Your task to perform on an android device: Search for sushi restaurants on Maps Image 0: 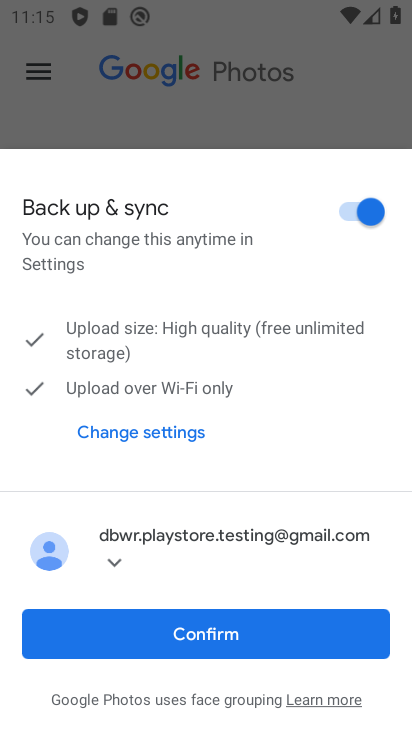
Step 0: press back button
Your task to perform on an android device: Search for sushi restaurants on Maps Image 1: 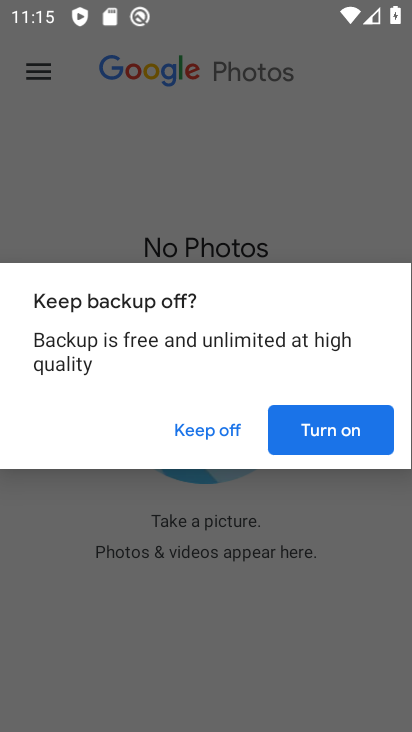
Step 1: press home button
Your task to perform on an android device: Search for sushi restaurants on Maps Image 2: 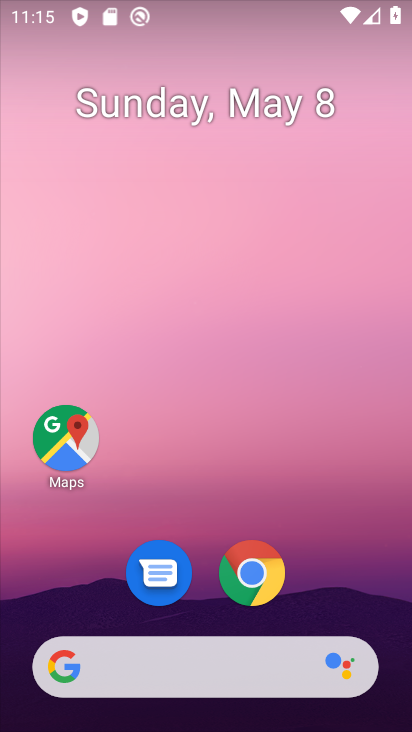
Step 2: drag from (319, 525) to (225, 17)
Your task to perform on an android device: Search for sushi restaurants on Maps Image 3: 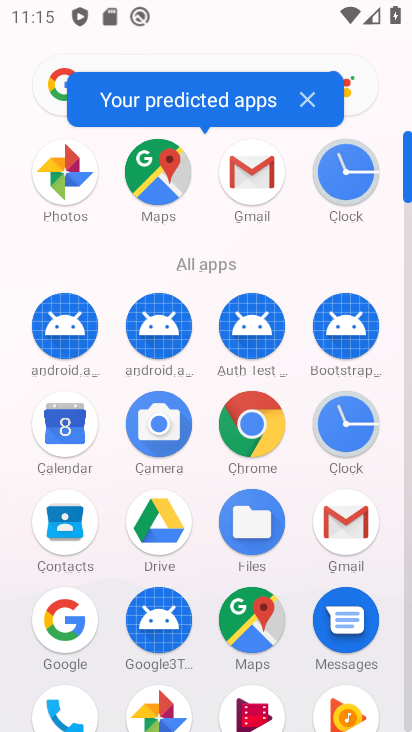
Step 3: click (157, 172)
Your task to perform on an android device: Search for sushi restaurants on Maps Image 4: 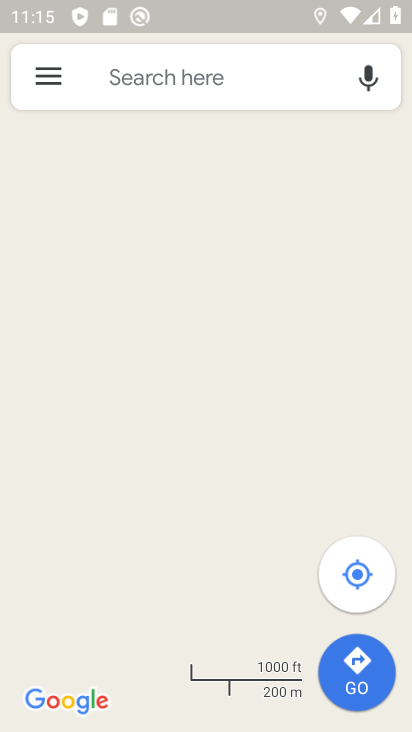
Step 4: click (245, 75)
Your task to perform on an android device: Search for sushi restaurants on Maps Image 5: 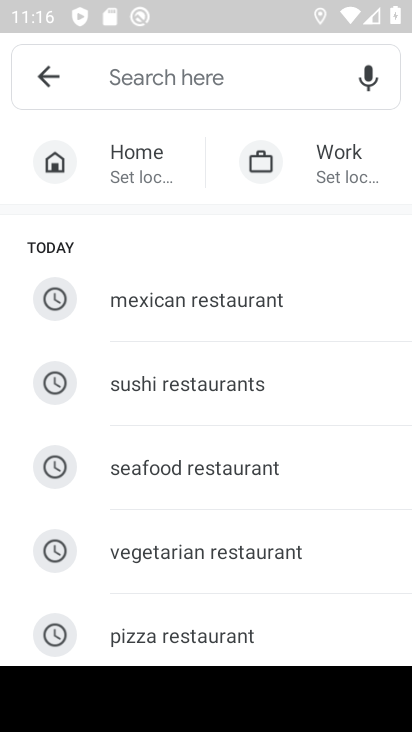
Step 5: click (212, 395)
Your task to perform on an android device: Search for sushi restaurants on Maps Image 6: 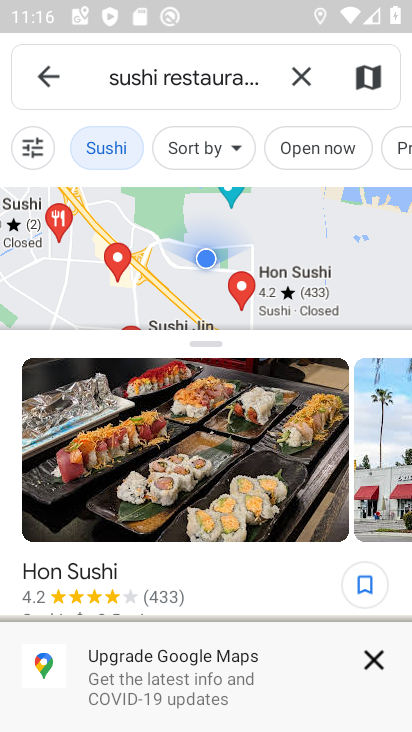
Step 6: task complete